Your task to perform on an android device: toggle location history Image 0: 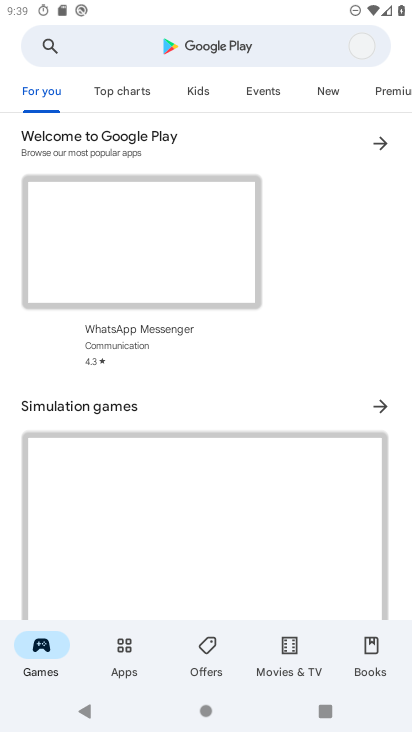
Step 0: press home button
Your task to perform on an android device: toggle location history Image 1: 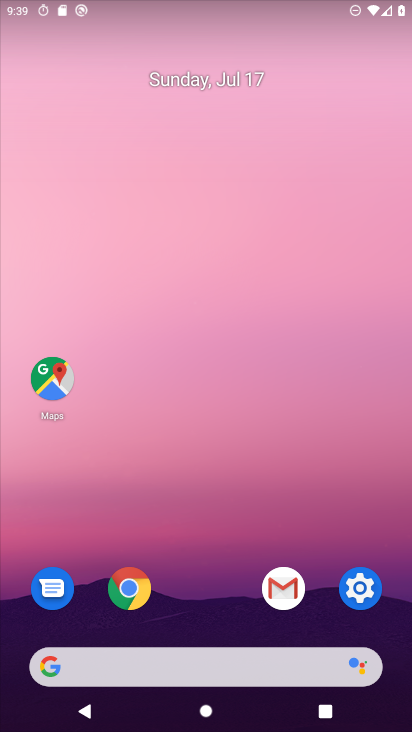
Step 1: click (351, 579)
Your task to perform on an android device: toggle location history Image 2: 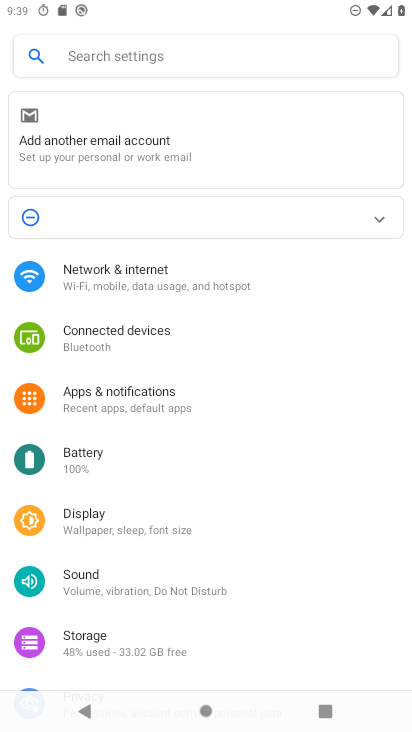
Step 2: drag from (119, 615) to (138, 519)
Your task to perform on an android device: toggle location history Image 3: 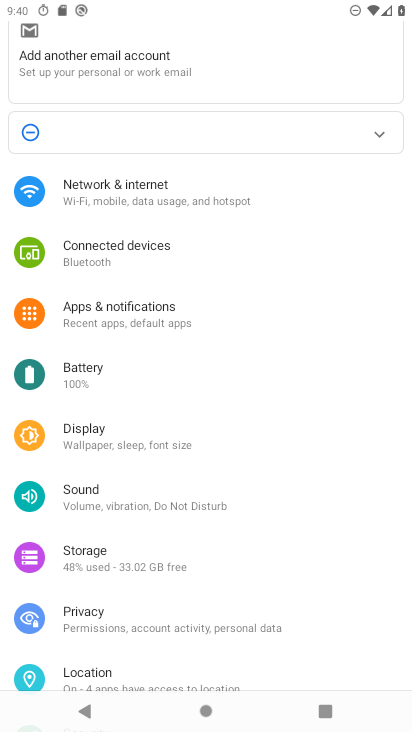
Step 3: click (96, 672)
Your task to perform on an android device: toggle location history Image 4: 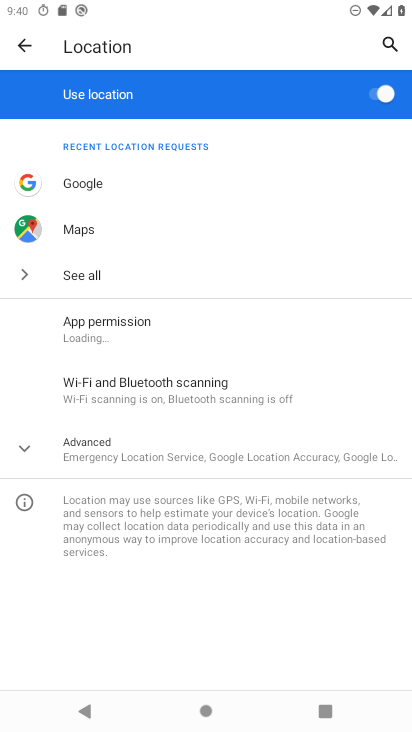
Step 4: click (17, 453)
Your task to perform on an android device: toggle location history Image 5: 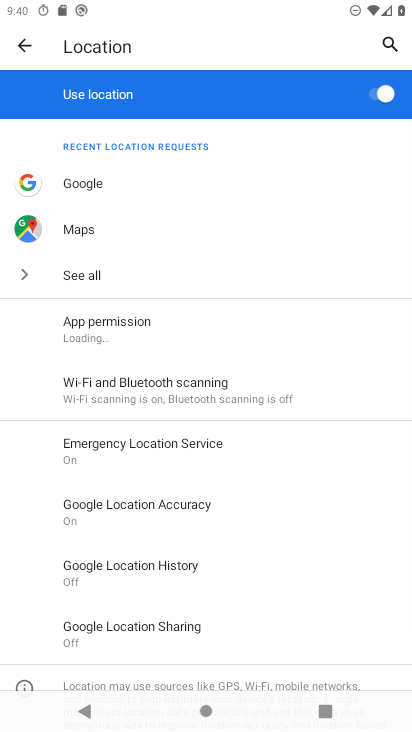
Step 5: click (158, 572)
Your task to perform on an android device: toggle location history Image 6: 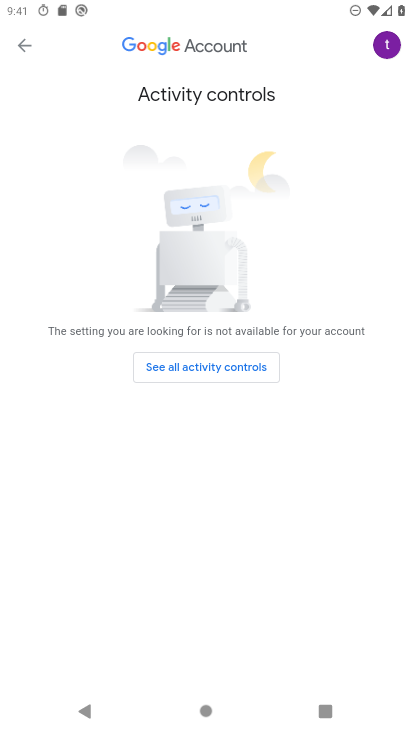
Step 6: task complete